Your task to perform on an android device: Empty the shopping cart on amazon. Add "bose soundlink" to the cart on amazon Image 0: 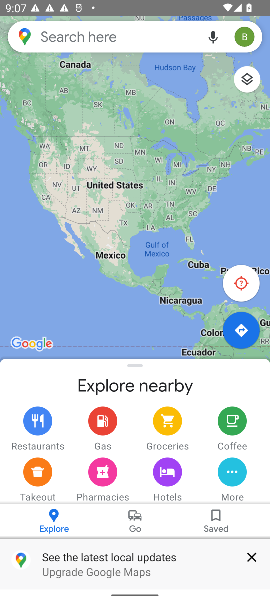
Step 0: press home button
Your task to perform on an android device: Empty the shopping cart on amazon. Add "bose soundlink" to the cart on amazon Image 1: 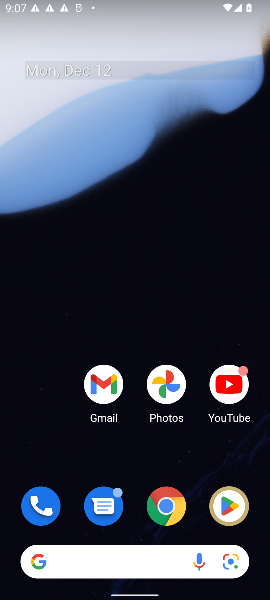
Step 1: click (160, 510)
Your task to perform on an android device: Empty the shopping cart on amazon. Add "bose soundlink" to the cart on amazon Image 2: 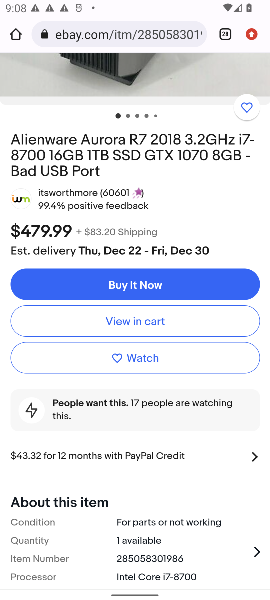
Step 2: task complete